Your task to perform on an android device: Set the phone to "Do not disturb". Image 0: 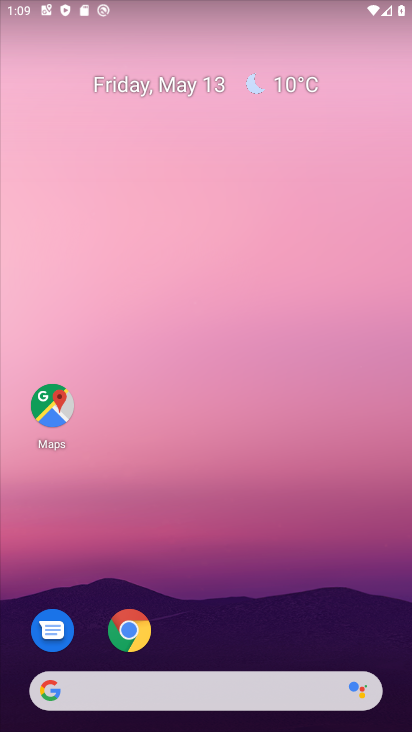
Step 0: drag from (184, 688) to (228, 209)
Your task to perform on an android device: Set the phone to "Do not disturb". Image 1: 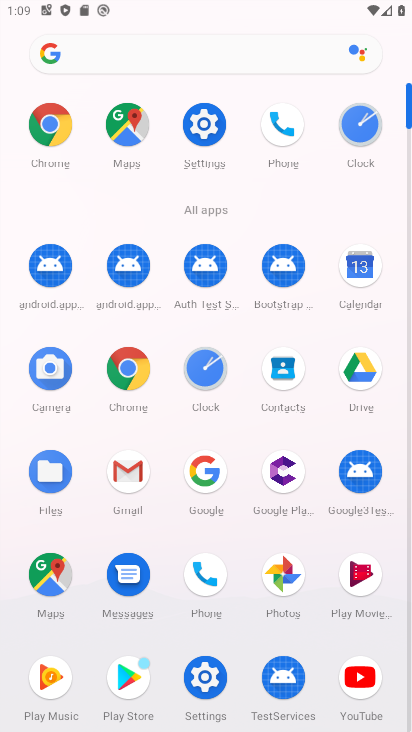
Step 1: click (203, 673)
Your task to perform on an android device: Set the phone to "Do not disturb". Image 2: 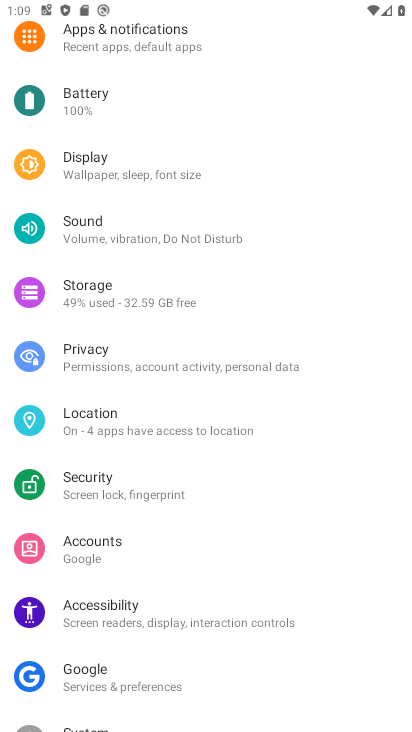
Step 2: click (68, 240)
Your task to perform on an android device: Set the phone to "Do not disturb". Image 3: 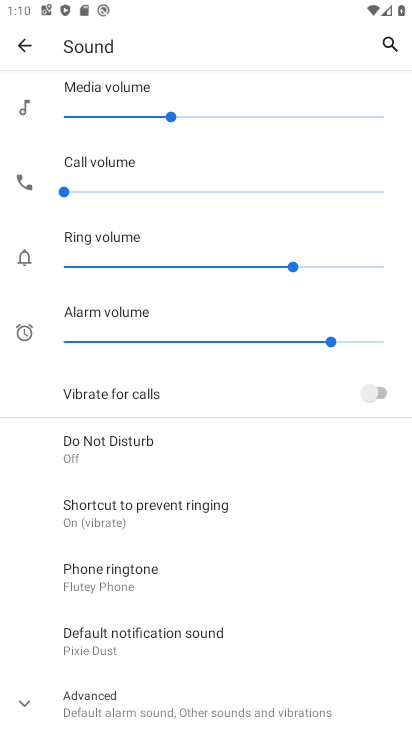
Step 3: click (168, 436)
Your task to perform on an android device: Set the phone to "Do not disturb". Image 4: 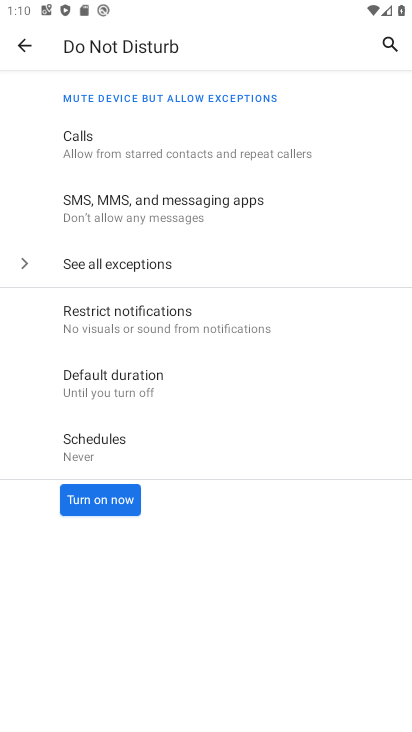
Step 4: click (110, 502)
Your task to perform on an android device: Set the phone to "Do not disturb". Image 5: 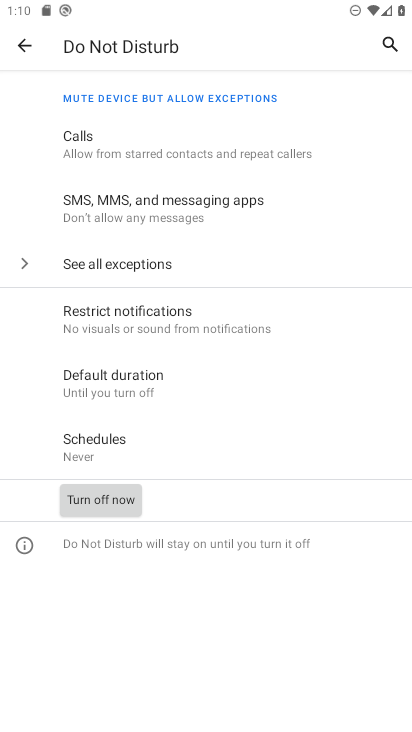
Step 5: task complete